Your task to perform on an android device: turn notification dots off Image 0: 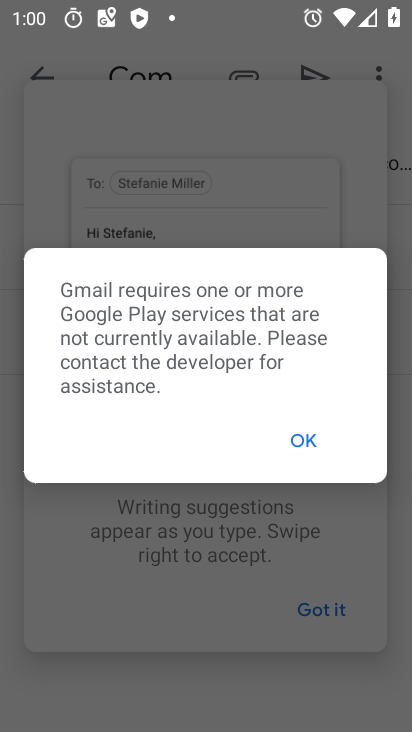
Step 0: press home button
Your task to perform on an android device: turn notification dots off Image 1: 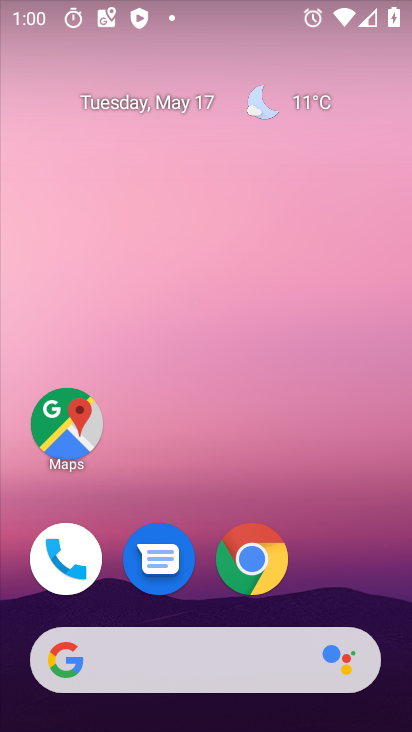
Step 1: drag from (344, 522) to (344, 97)
Your task to perform on an android device: turn notification dots off Image 2: 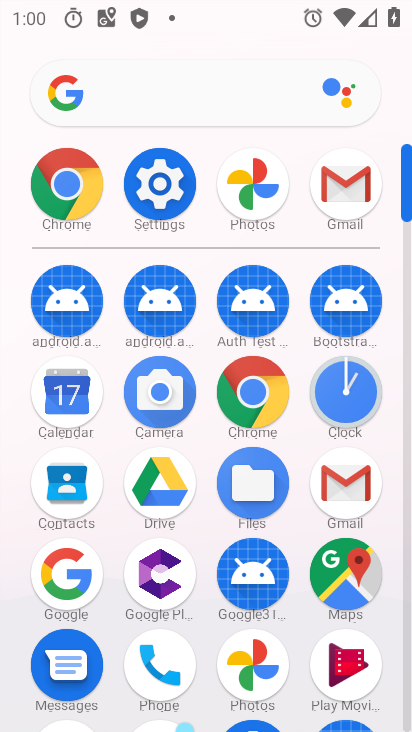
Step 2: click (177, 182)
Your task to perform on an android device: turn notification dots off Image 3: 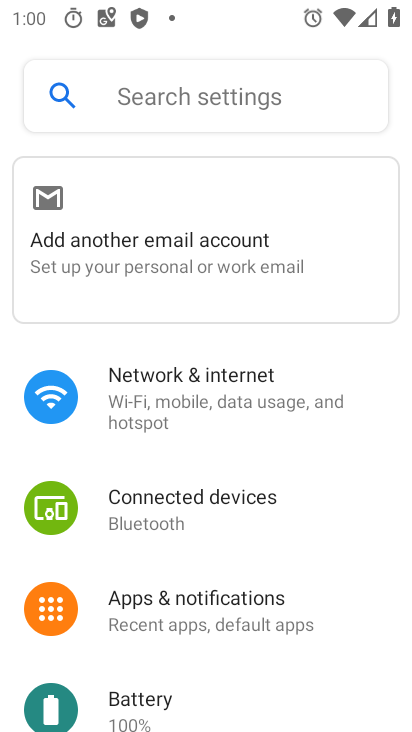
Step 3: click (181, 593)
Your task to perform on an android device: turn notification dots off Image 4: 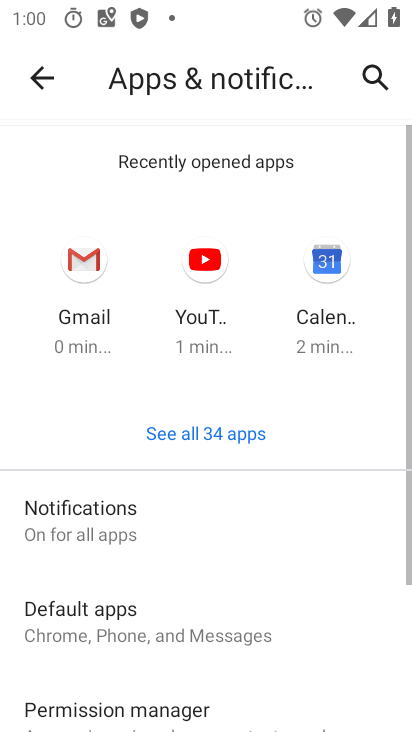
Step 4: click (145, 530)
Your task to perform on an android device: turn notification dots off Image 5: 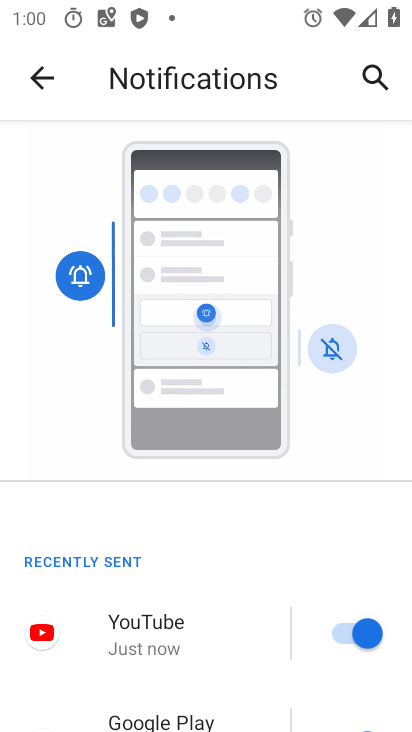
Step 5: drag from (168, 596) to (205, 168)
Your task to perform on an android device: turn notification dots off Image 6: 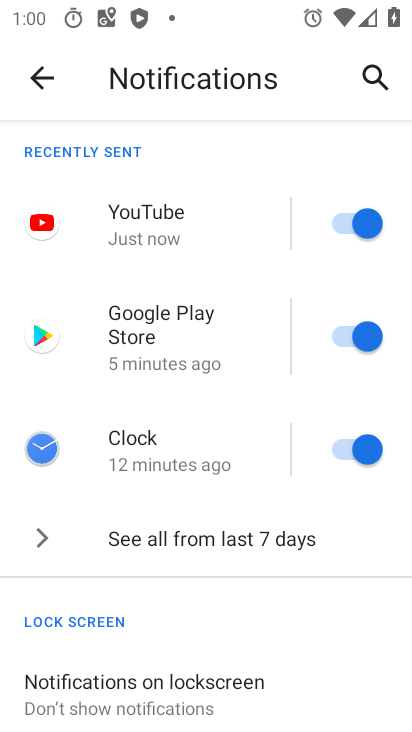
Step 6: drag from (162, 633) to (196, 237)
Your task to perform on an android device: turn notification dots off Image 7: 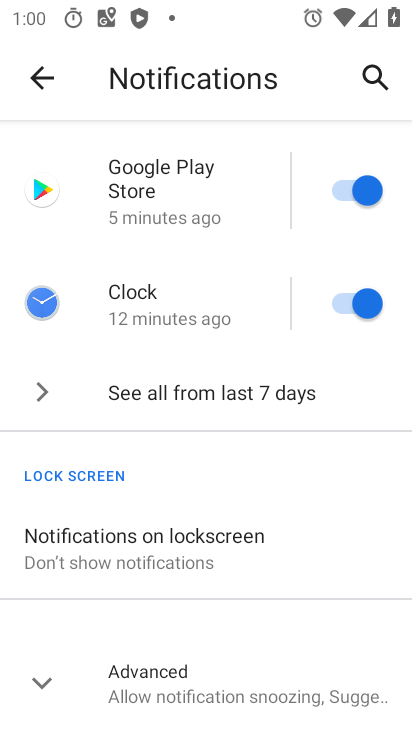
Step 7: click (126, 685)
Your task to perform on an android device: turn notification dots off Image 8: 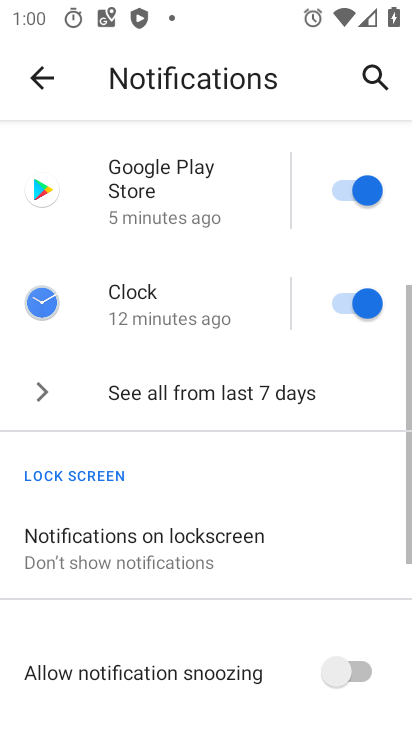
Step 8: drag from (208, 643) to (260, 214)
Your task to perform on an android device: turn notification dots off Image 9: 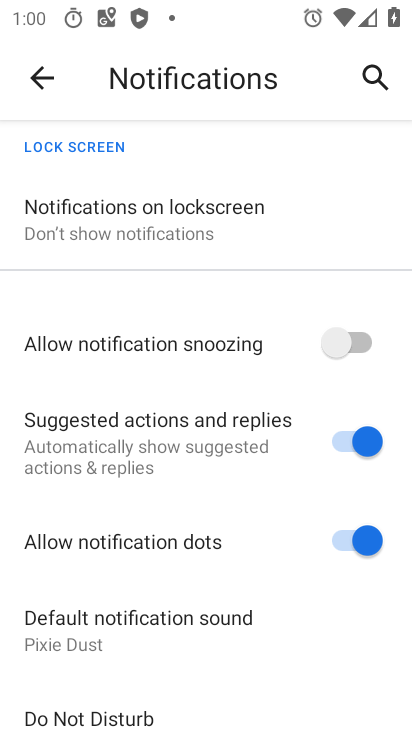
Step 9: click (347, 545)
Your task to perform on an android device: turn notification dots off Image 10: 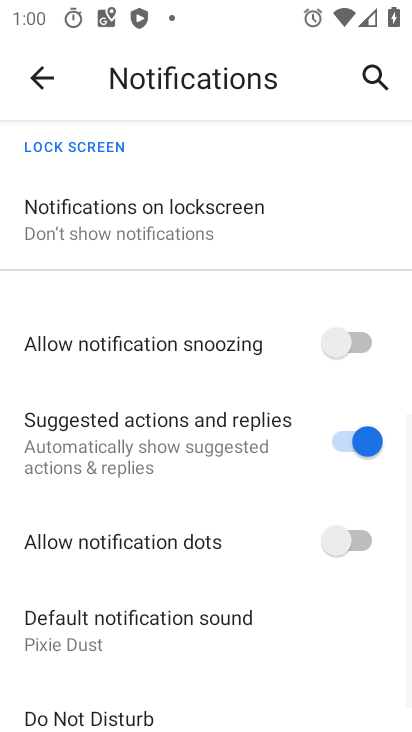
Step 10: task complete